Your task to perform on an android device: turn notification dots off Image 0: 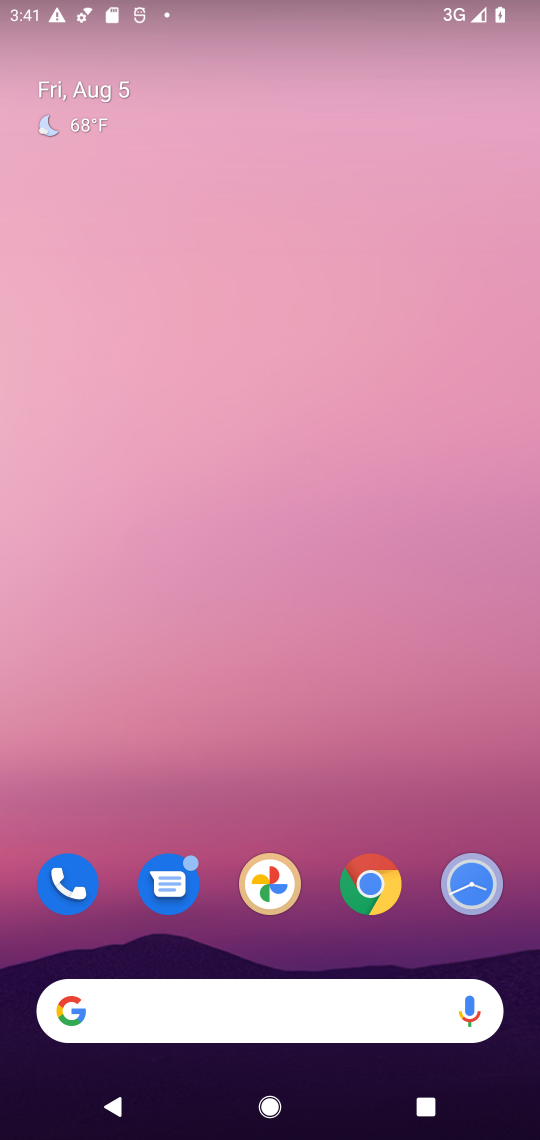
Step 0: drag from (460, 789) to (129, 92)
Your task to perform on an android device: turn notification dots off Image 1: 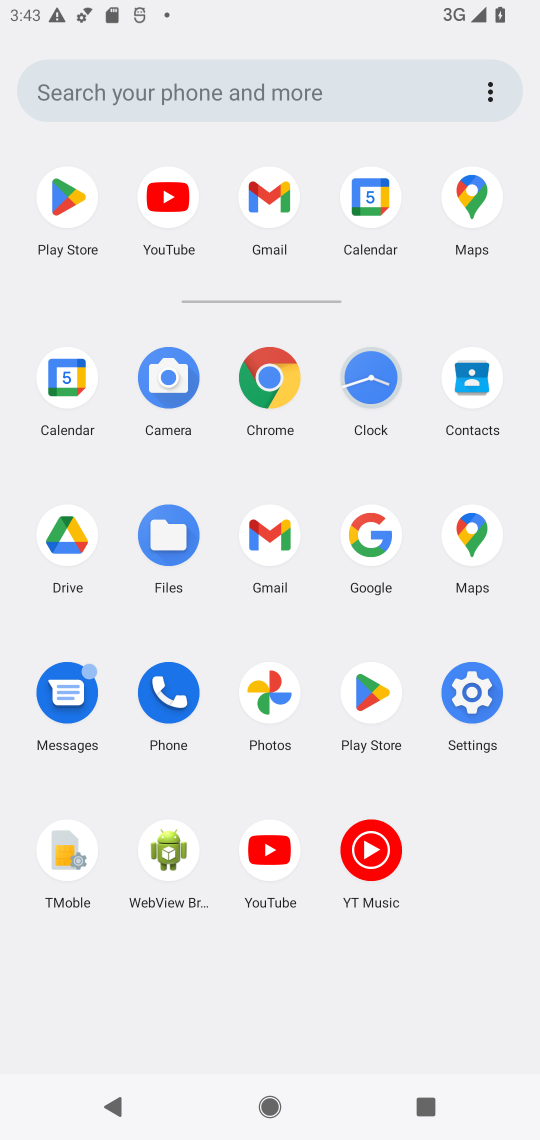
Step 1: click (444, 696)
Your task to perform on an android device: turn notification dots off Image 2: 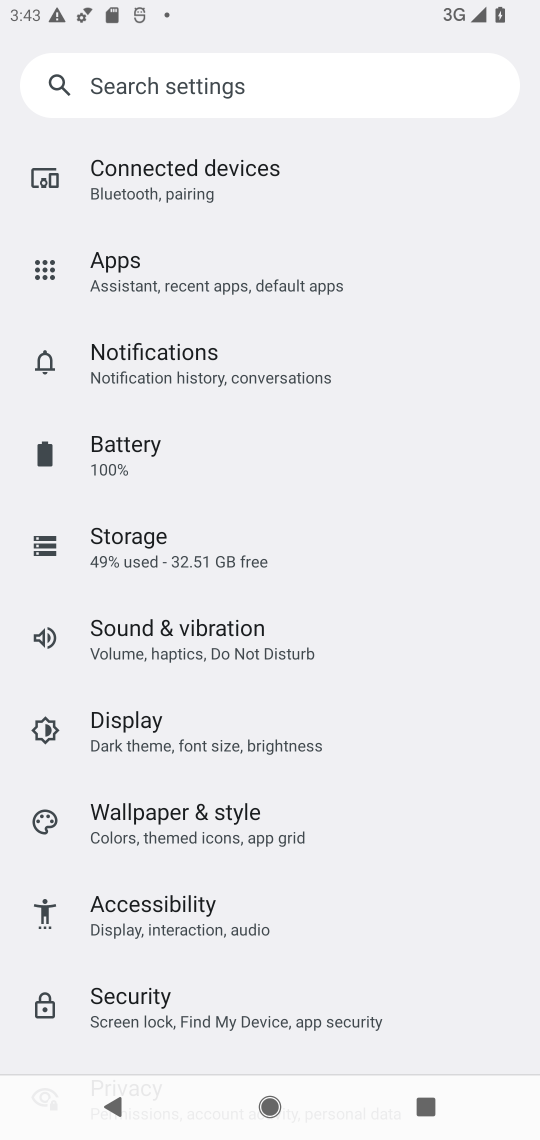
Step 2: click (217, 369)
Your task to perform on an android device: turn notification dots off Image 3: 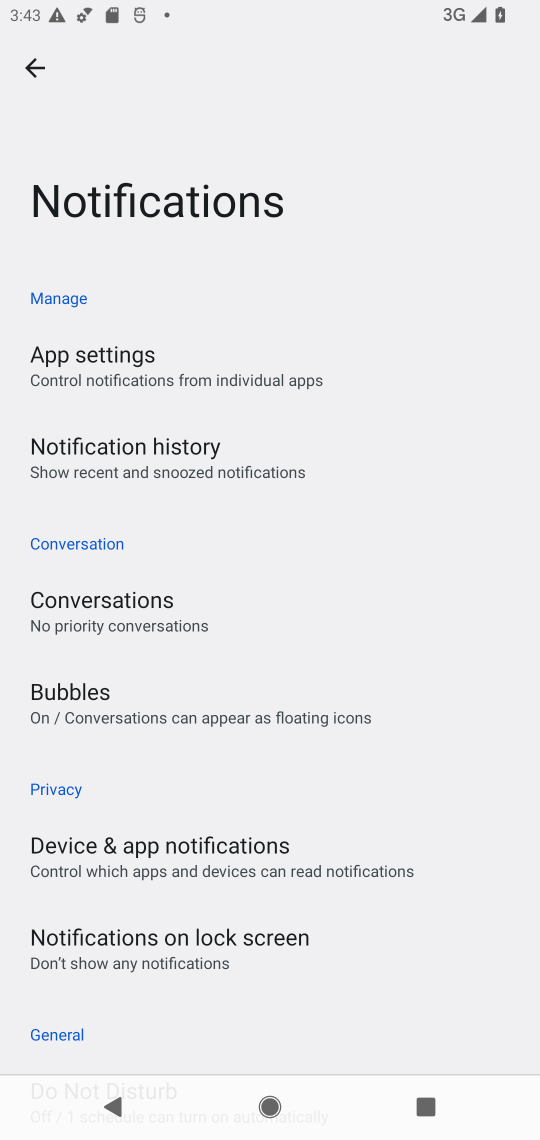
Step 3: drag from (355, 1069) to (124, 14)
Your task to perform on an android device: turn notification dots off Image 4: 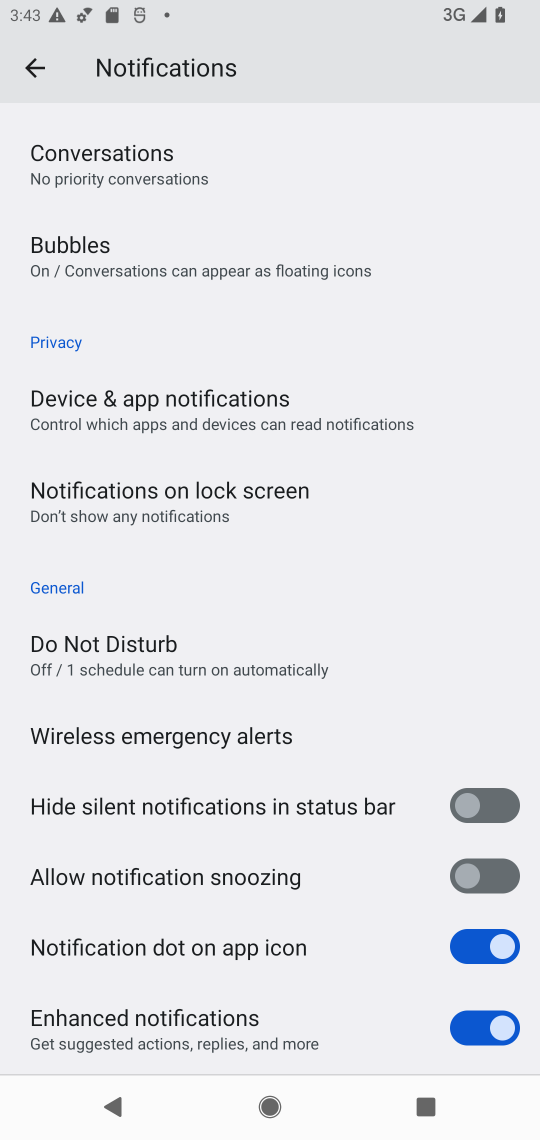
Step 4: click (378, 939)
Your task to perform on an android device: turn notification dots off Image 5: 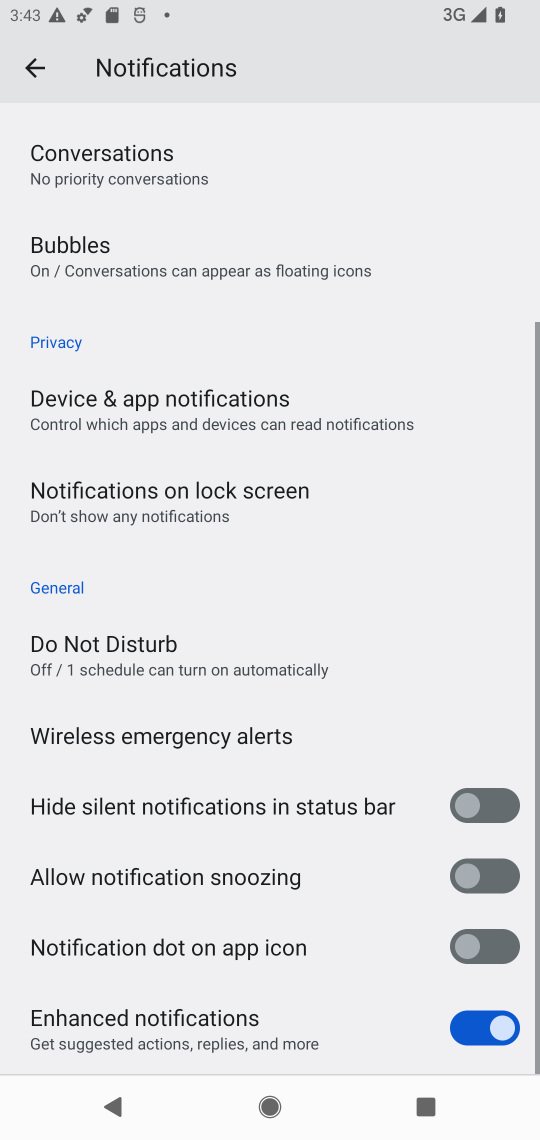
Step 5: task complete